Your task to perform on an android device: change the clock display to digital Image 0: 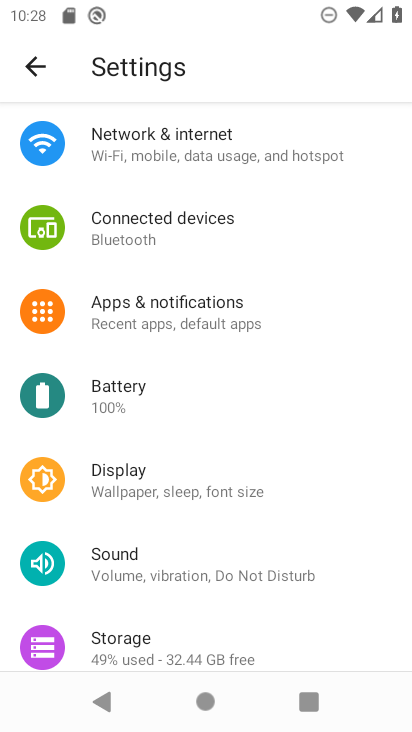
Step 0: press home button
Your task to perform on an android device: change the clock display to digital Image 1: 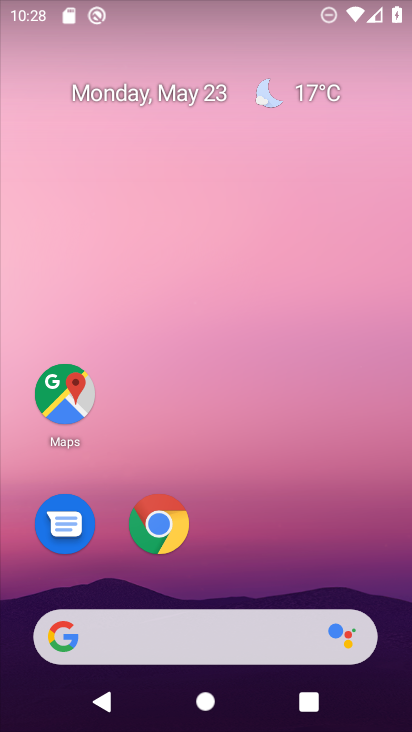
Step 1: drag from (206, 586) to (229, 152)
Your task to perform on an android device: change the clock display to digital Image 2: 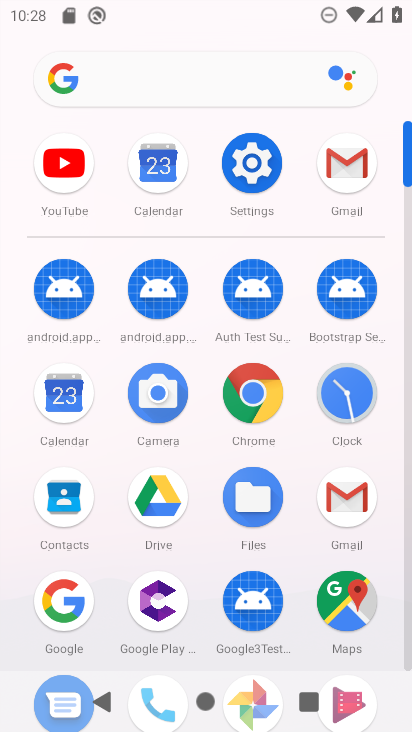
Step 2: click (335, 375)
Your task to perform on an android device: change the clock display to digital Image 3: 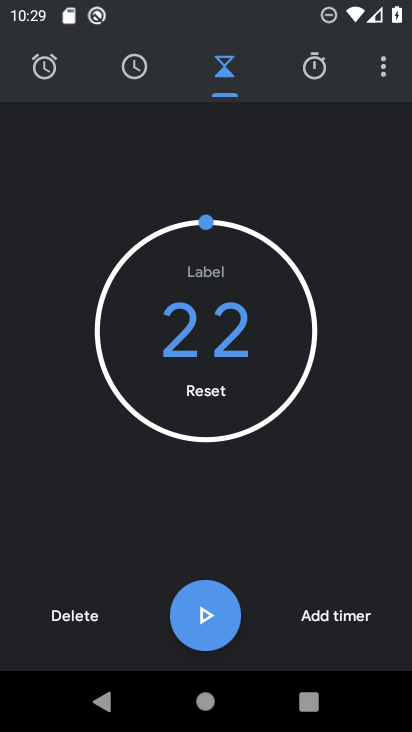
Step 3: click (394, 67)
Your task to perform on an android device: change the clock display to digital Image 4: 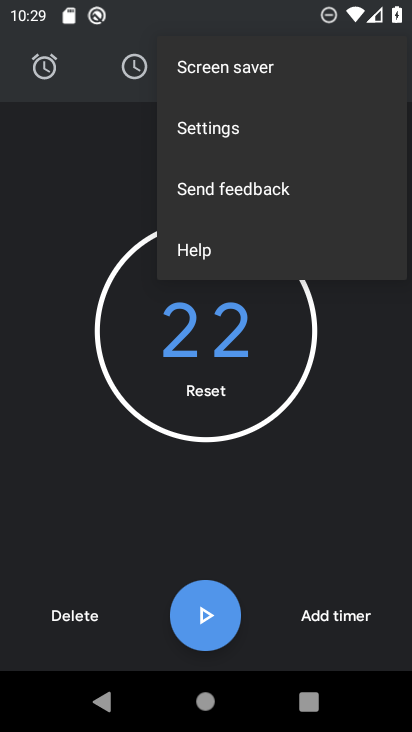
Step 4: click (189, 143)
Your task to perform on an android device: change the clock display to digital Image 5: 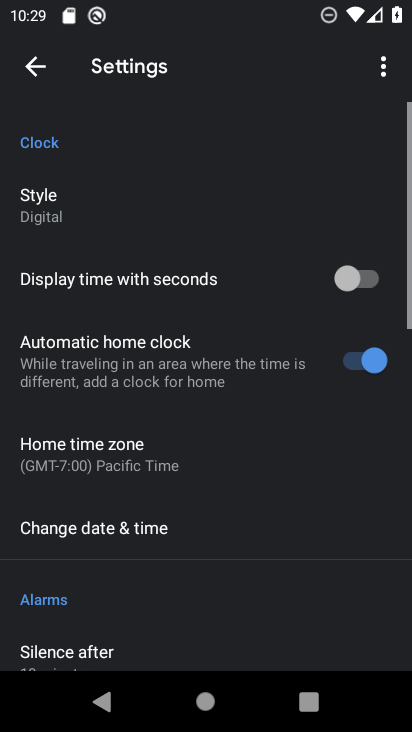
Step 5: click (168, 213)
Your task to perform on an android device: change the clock display to digital Image 6: 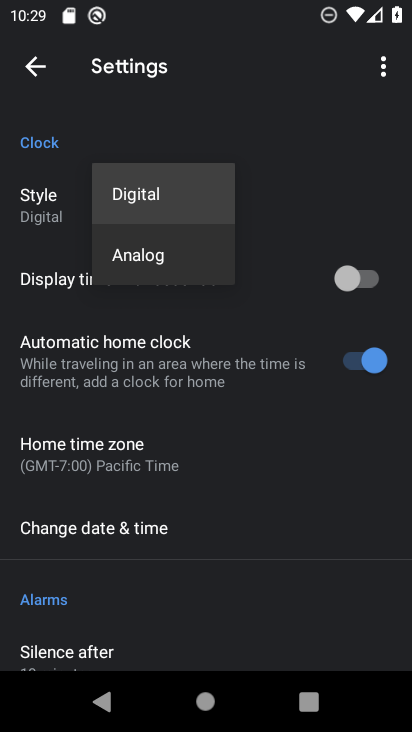
Step 6: task complete